Your task to perform on an android device: read, delete, or share a saved page in the chrome app Image 0: 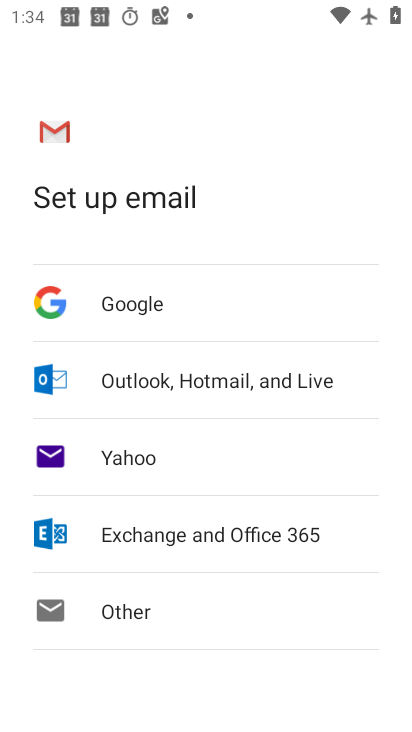
Step 0: press home button
Your task to perform on an android device: read, delete, or share a saved page in the chrome app Image 1: 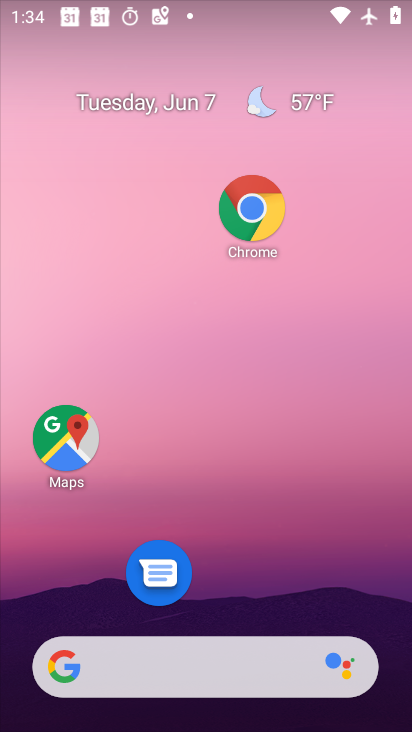
Step 1: click (251, 212)
Your task to perform on an android device: read, delete, or share a saved page in the chrome app Image 2: 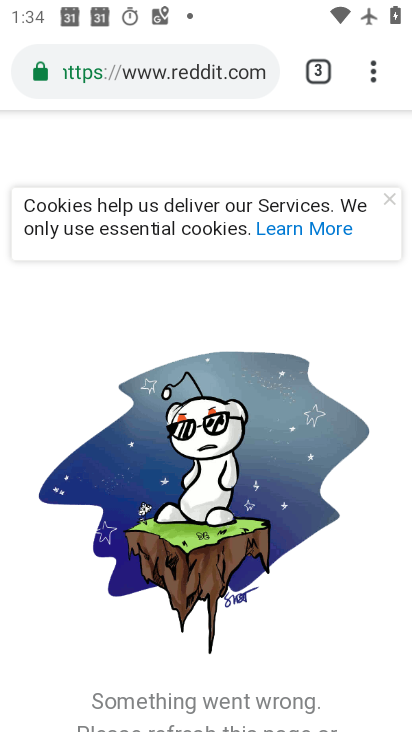
Step 2: click (366, 61)
Your task to perform on an android device: read, delete, or share a saved page in the chrome app Image 3: 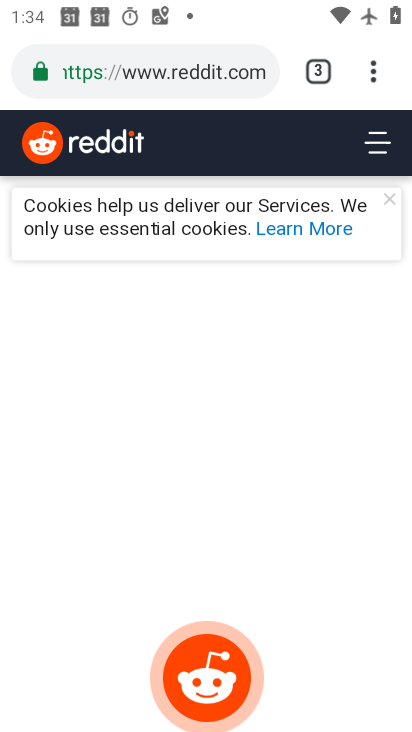
Step 3: drag from (372, 73) to (86, 332)
Your task to perform on an android device: read, delete, or share a saved page in the chrome app Image 4: 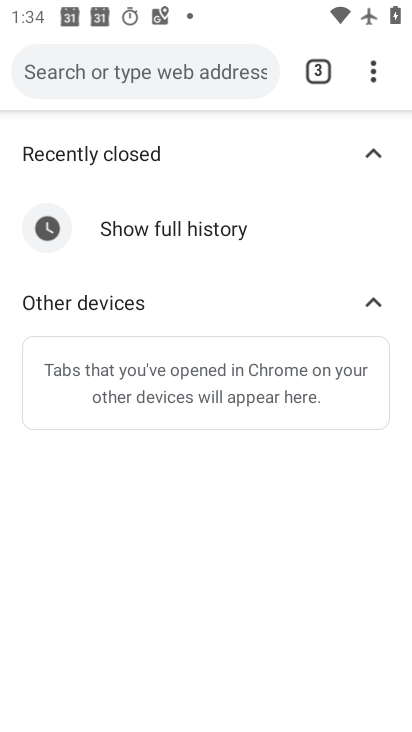
Step 4: drag from (378, 67) to (144, 451)
Your task to perform on an android device: read, delete, or share a saved page in the chrome app Image 5: 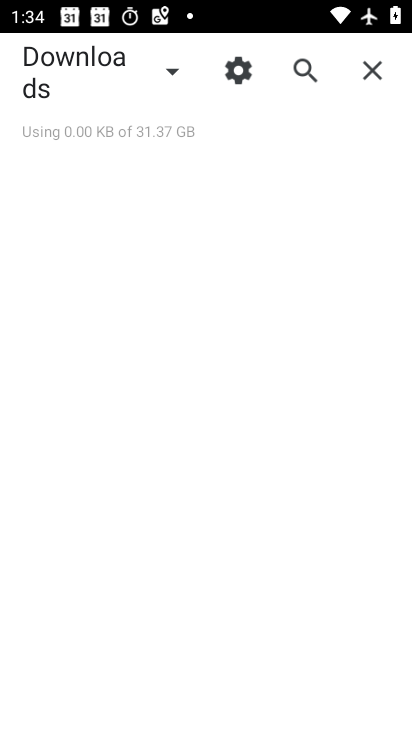
Step 5: click (154, 76)
Your task to perform on an android device: read, delete, or share a saved page in the chrome app Image 6: 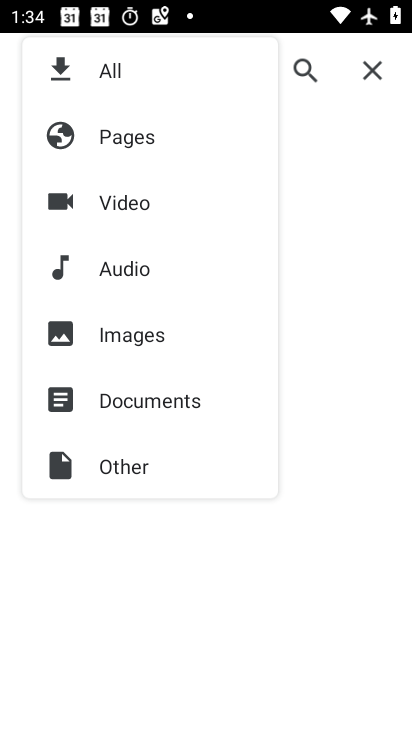
Step 6: click (120, 147)
Your task to perform on an android device: read, delete, or share a saved page in the chrome app Image 7: 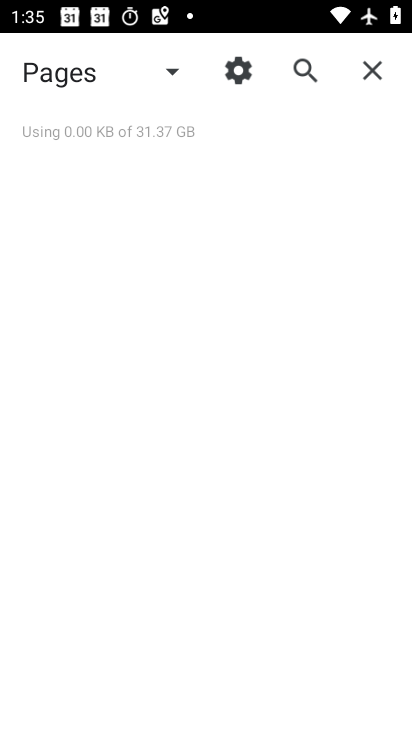
Step 7: task complete